Your task to perform on an android device: Add usb-a to the cart on newegg Image 0: 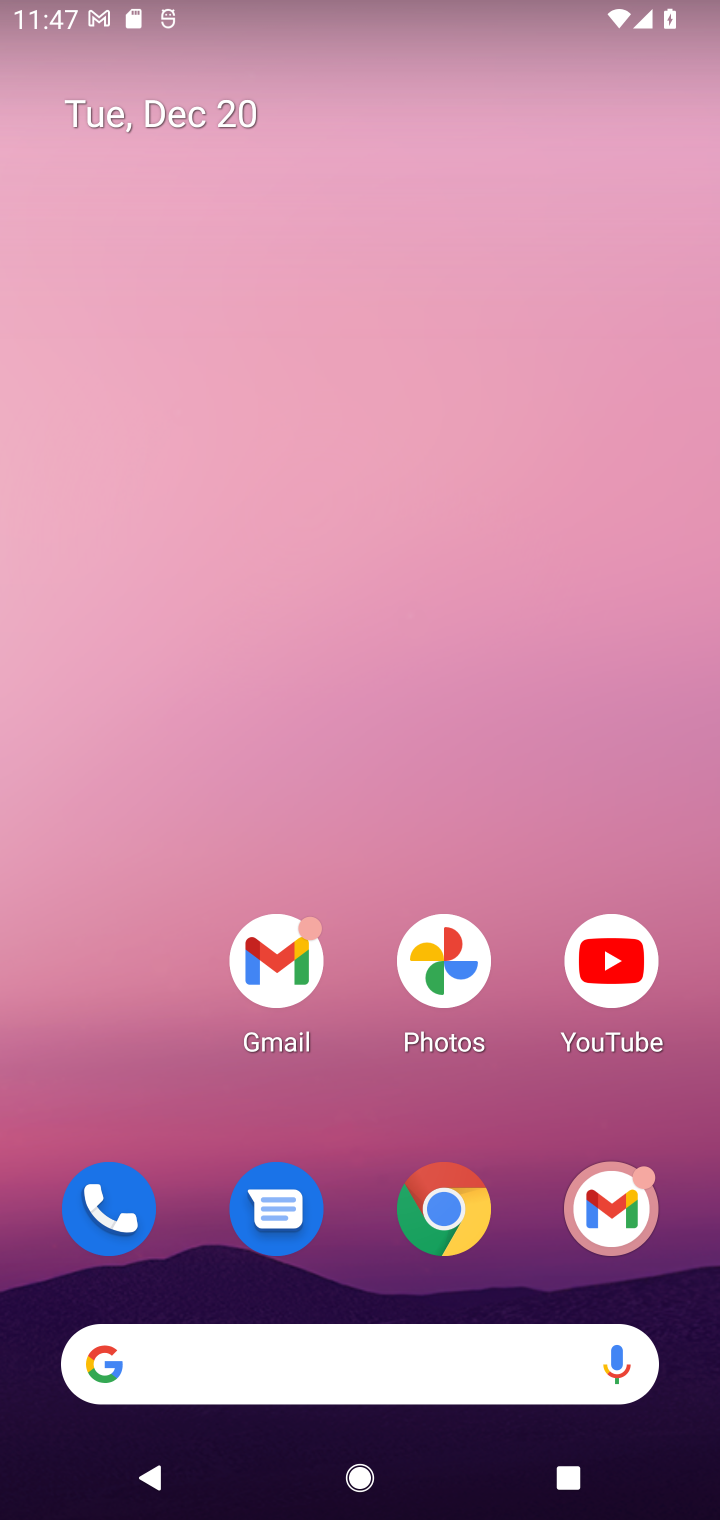
Step 0: click (432, 1218)
Your task to perform on an android device: Add usb-a to the cart on newegg Image 1: 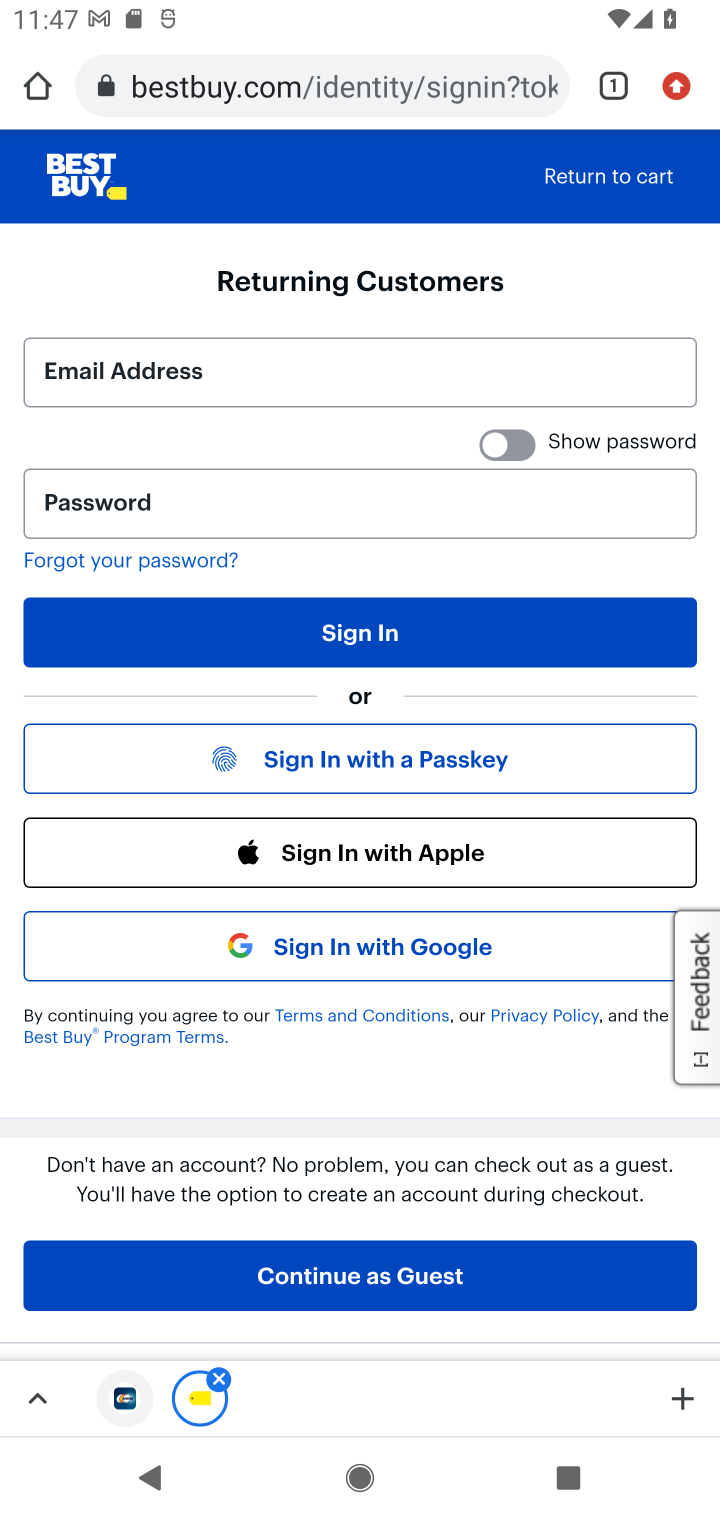
Step 1: click (220, 86)
Your task to perform on an android device: Add usb-a to the cart on newegg Image 2: 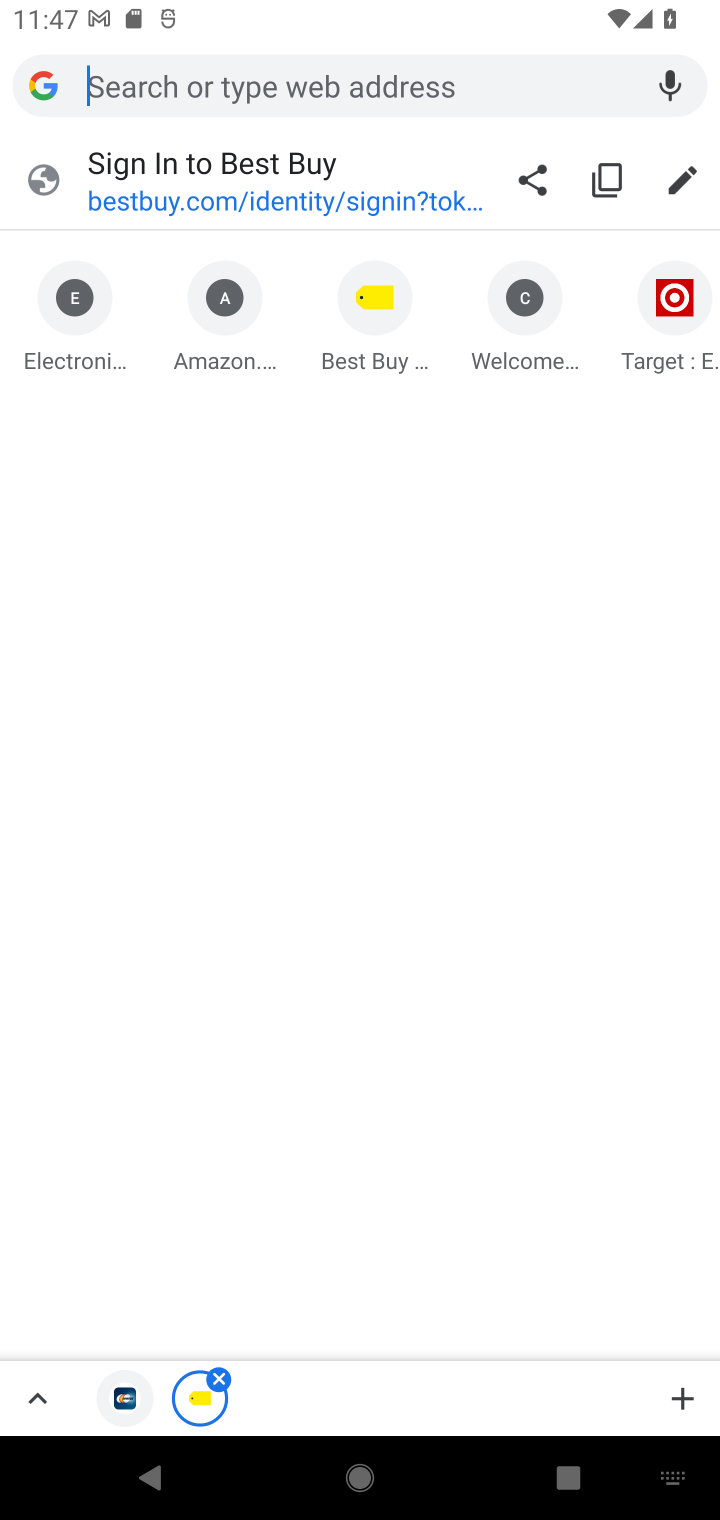
Step 2: type "newegg.com"
Your task to perform on an android device: Add usb-a to the cart on newegg Image 3: 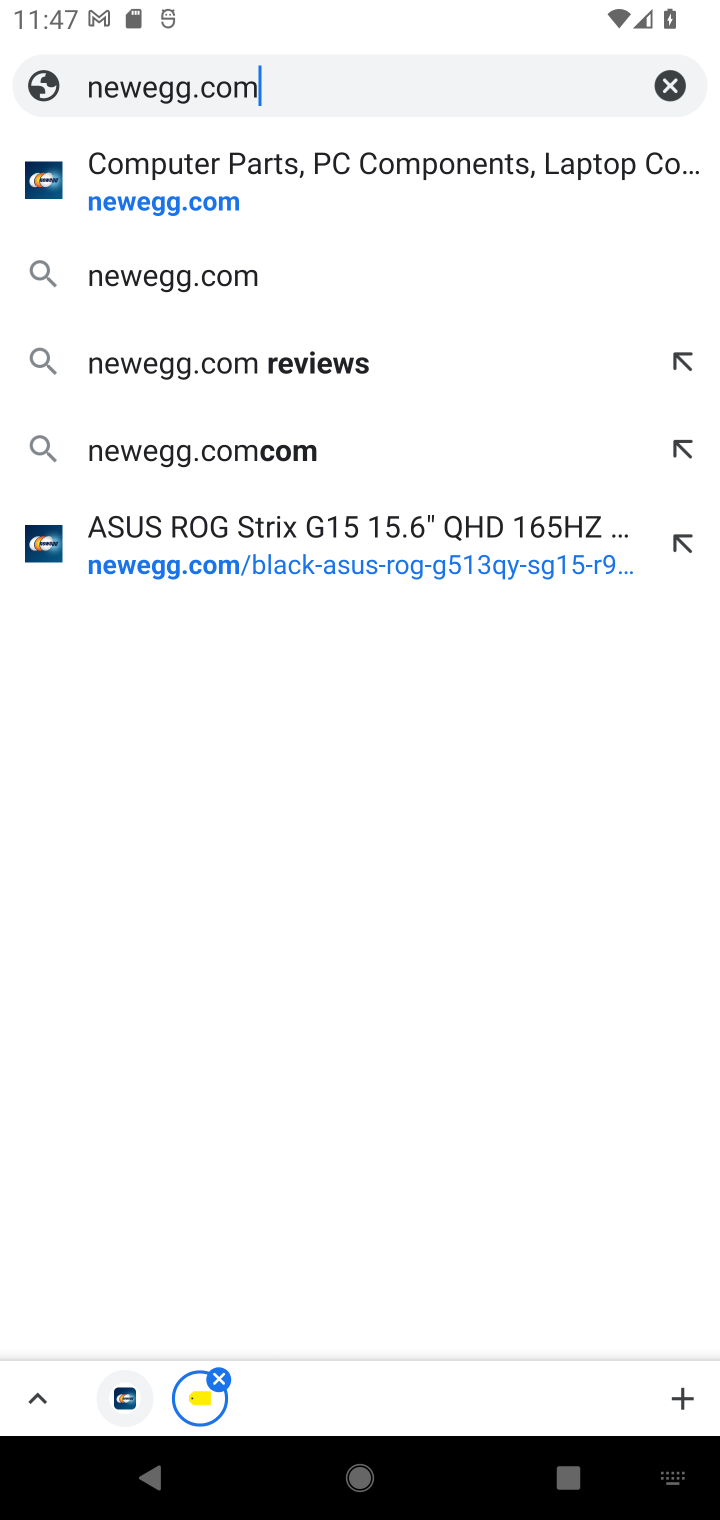
Step 3: click (127, 197)
Your task to perform on an android device: Add usb-a to the cart on newegg Image 4: 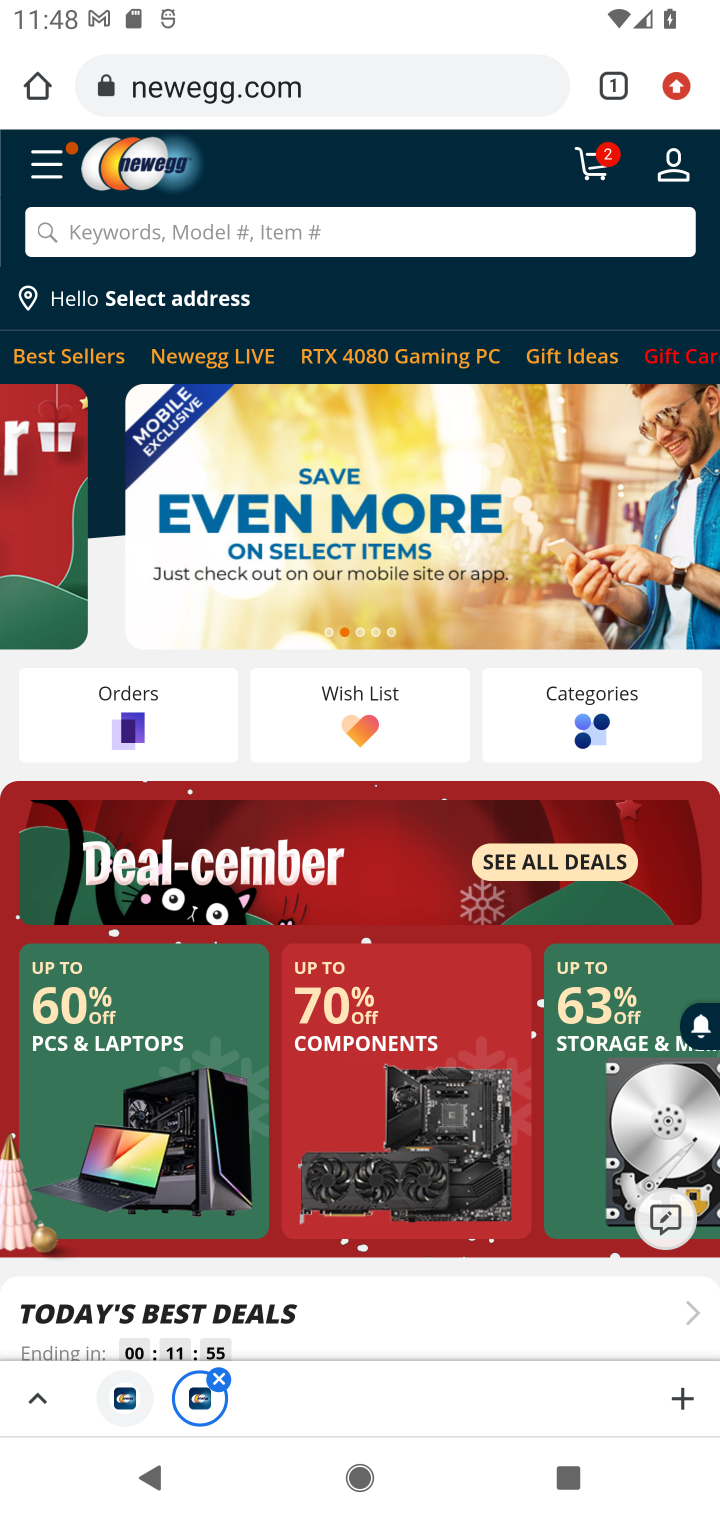
Step 4: click (174, 234)
Your task to perform on an android device: Add usb-a to the cart on newegg Image 5: 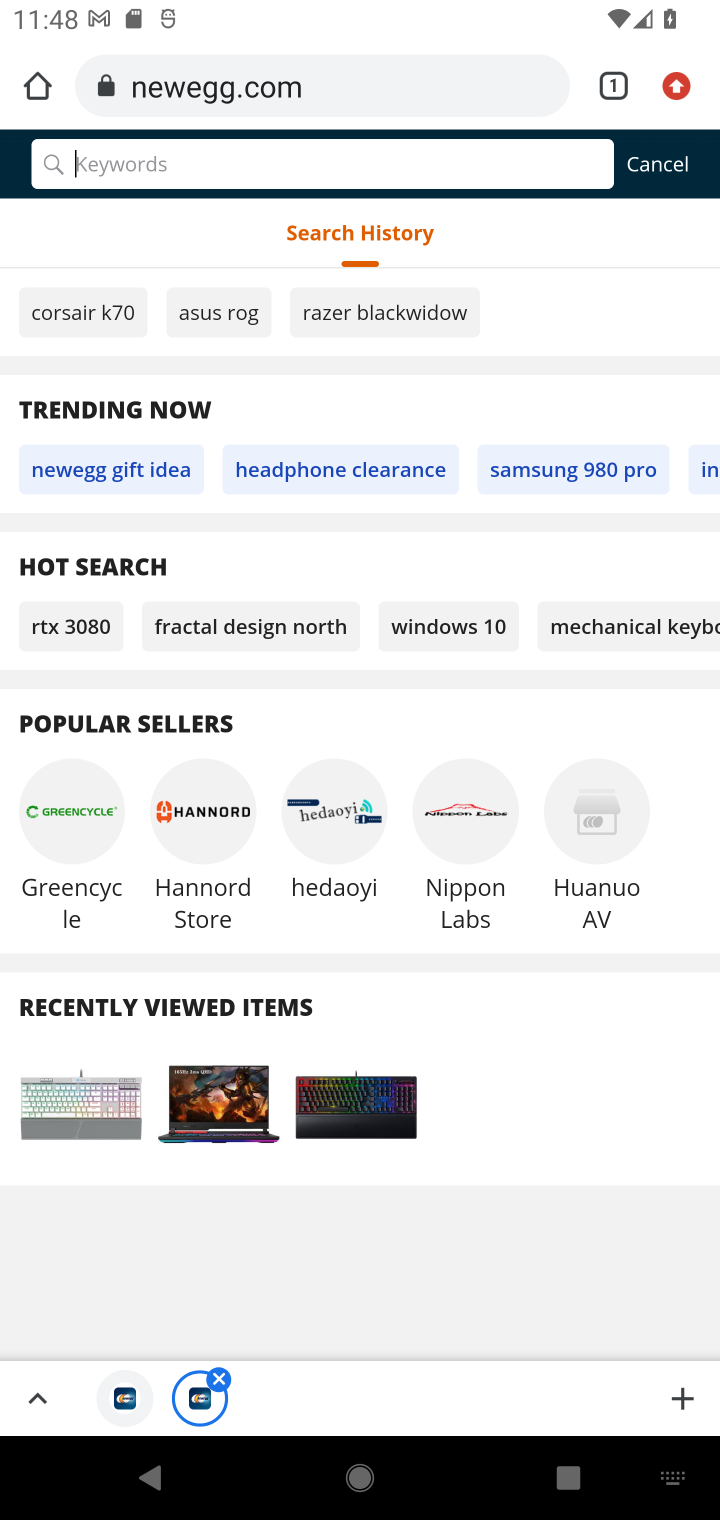
Step 5: type "usb-a"
Your task to perform on an android device: Add usb-a to the cart on newegg Image 6: 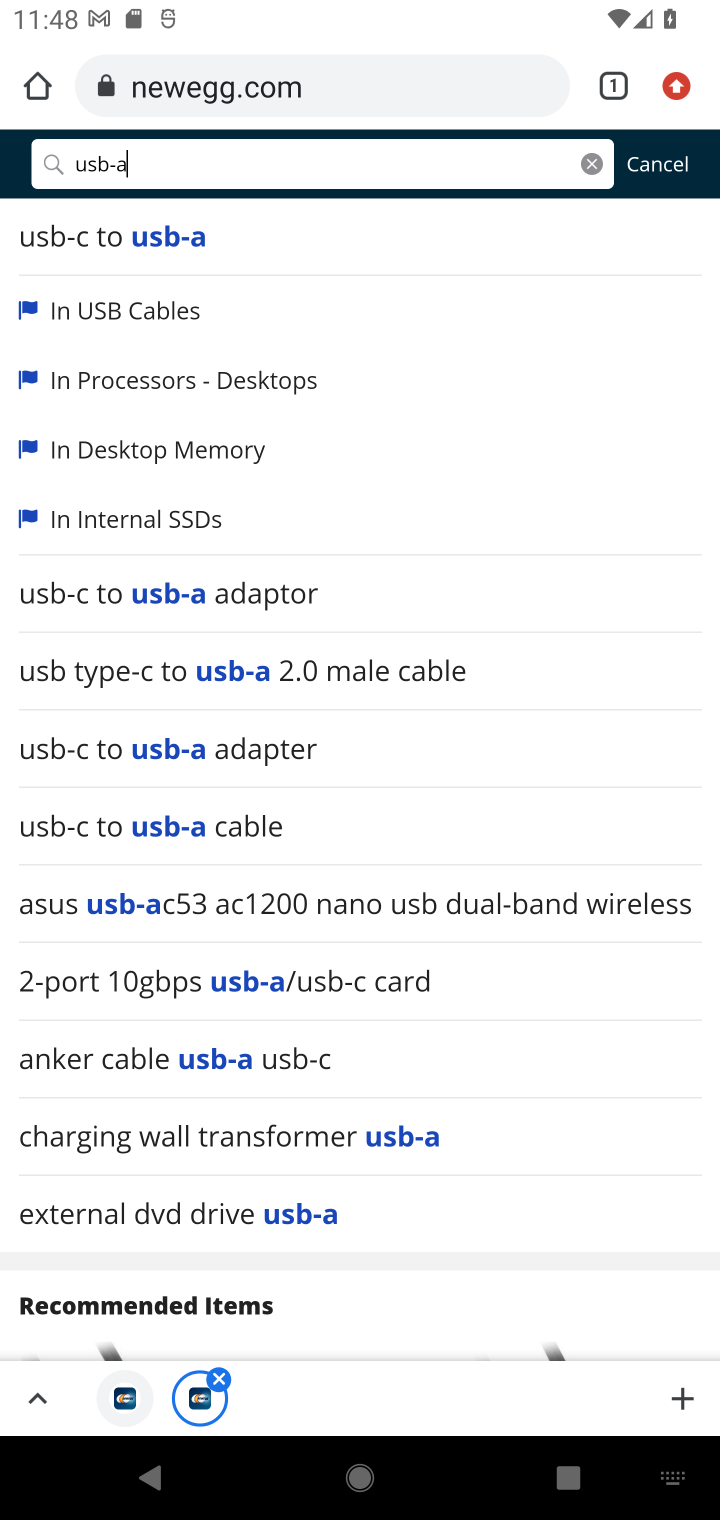
Step 6: click (62, 163)
Your task to perform on an android device: Add usb-a to the cart on newegg Image 7: 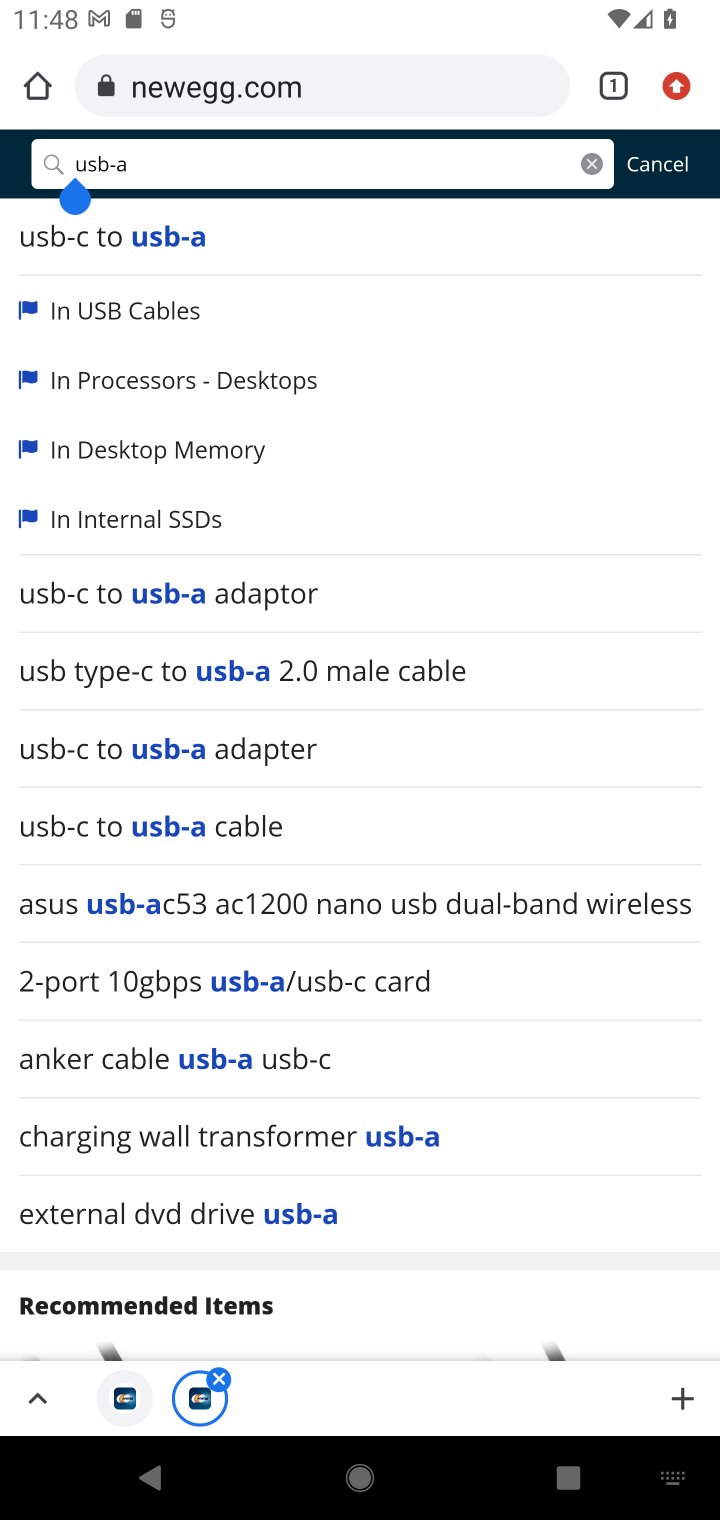
Step 7: click (143, 164)
Your task to perform on an android device: Add usb-a to the cart on newegg Image 8: 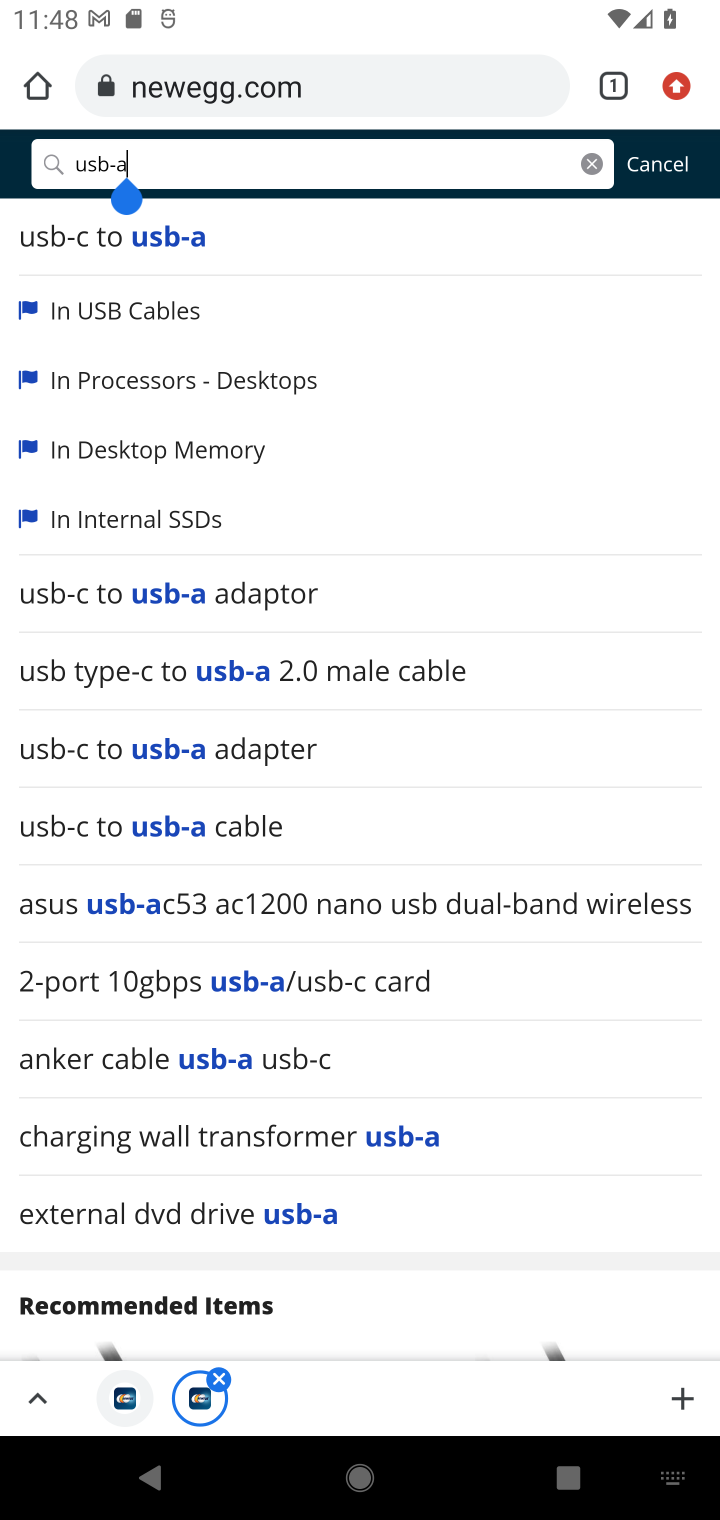
Step 8: click (55, 168)
Your task to perform on an android device: Add usb-a to the cart on newegg Image 9: 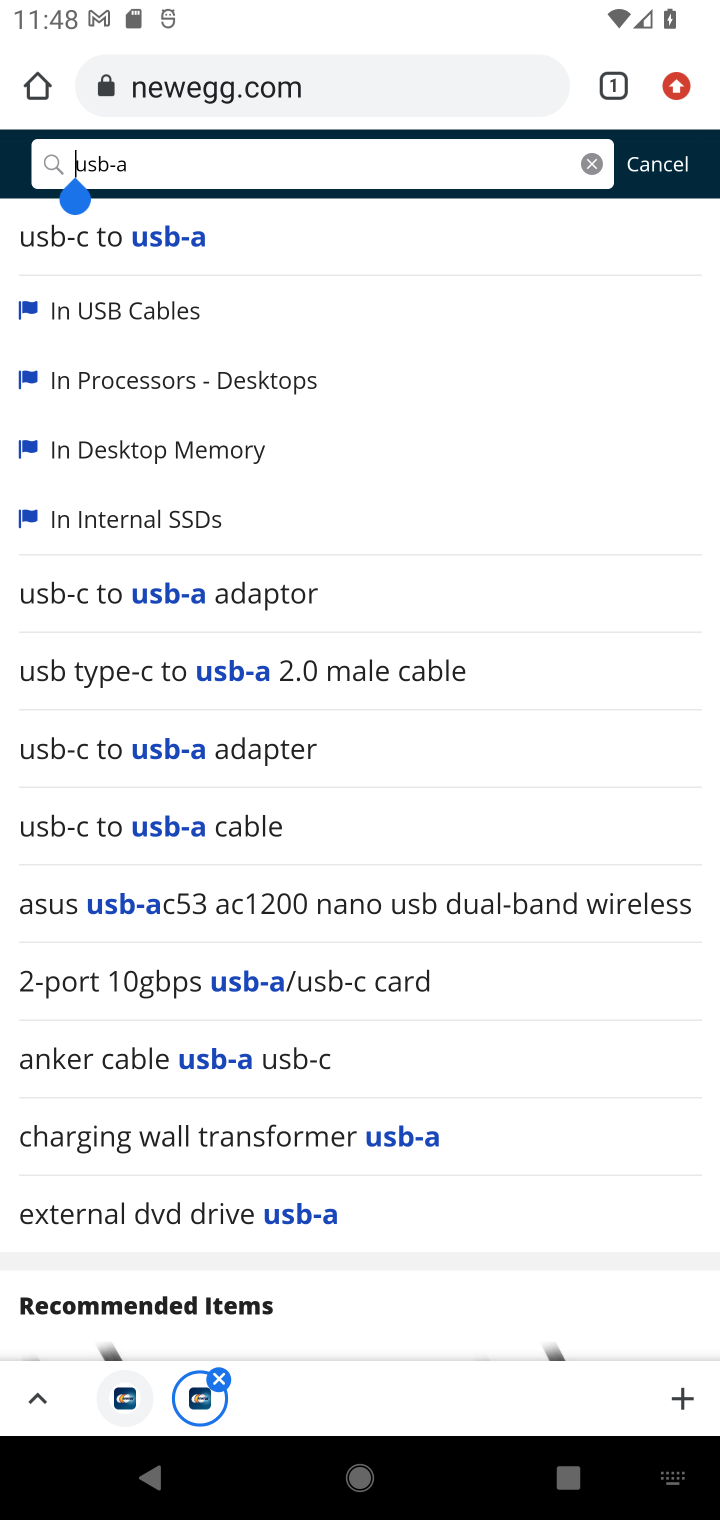
Step 9: drag from (259, 1109) to (261, 741)
Your task to perform on an android device: Add usb-a to the cart on newegg Image 10: 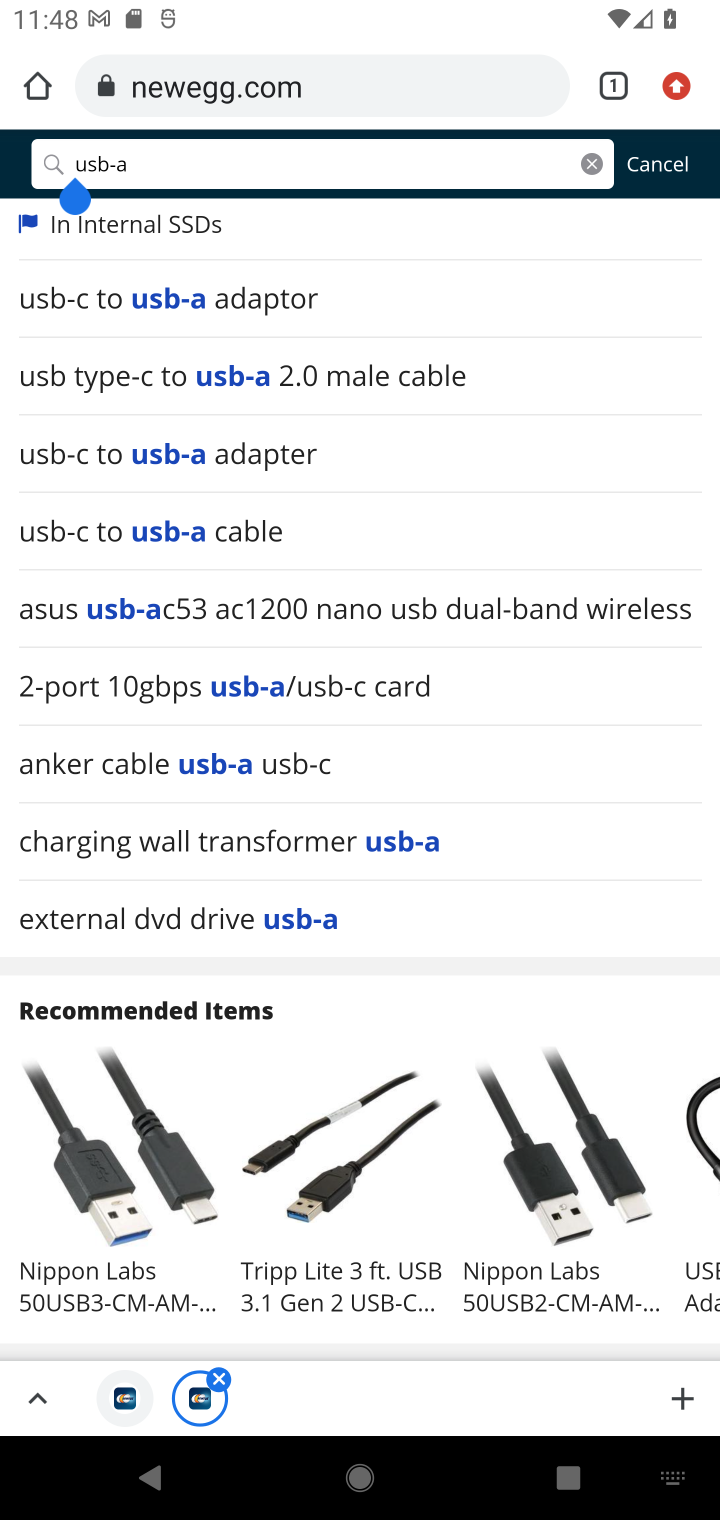
Step 10: click (254, 858)
Your task to perform on an android device: Add usb-a to the cart on newegg Image 11: 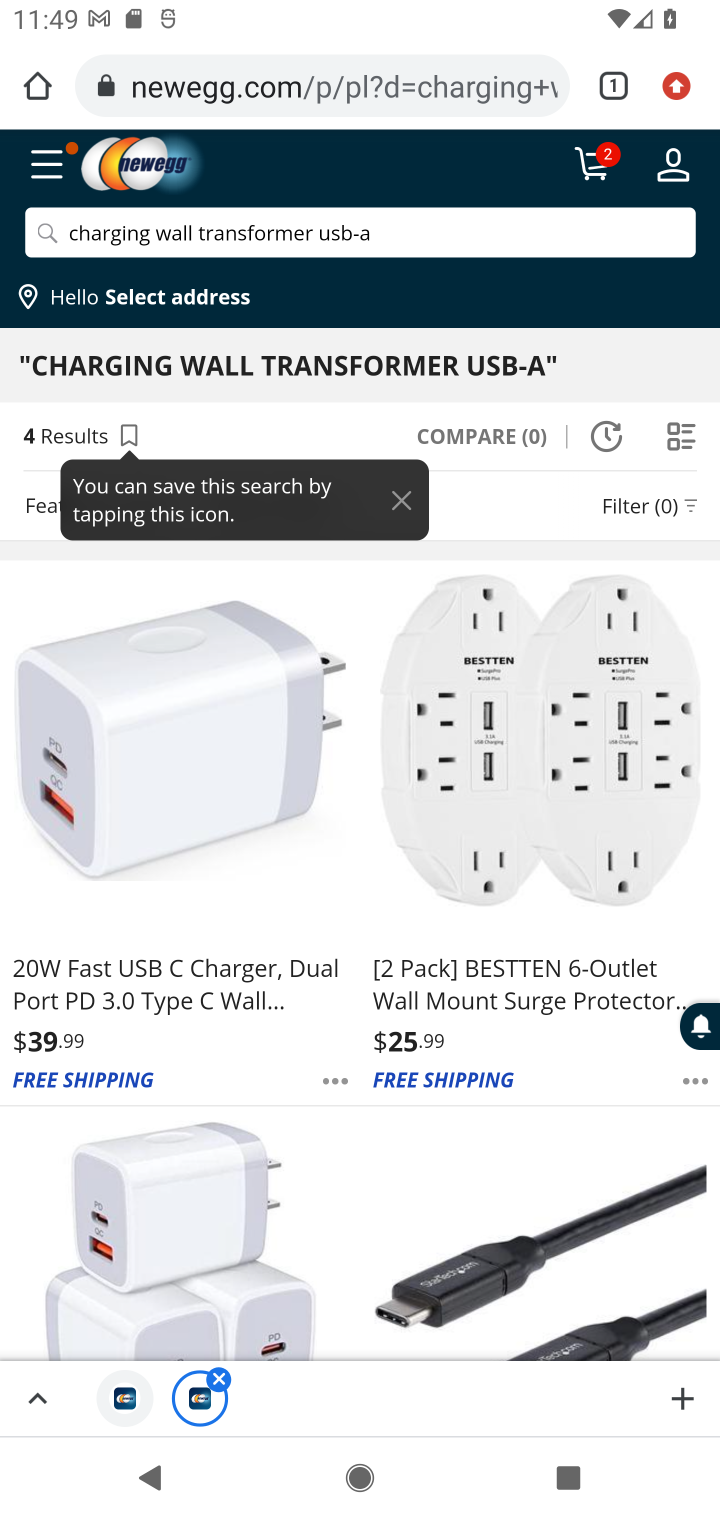
Step 11: drag from (260, 1020) to (250, 528)
Your task to perform on an android device: Add usb-a to the cart on newegg Image 12: 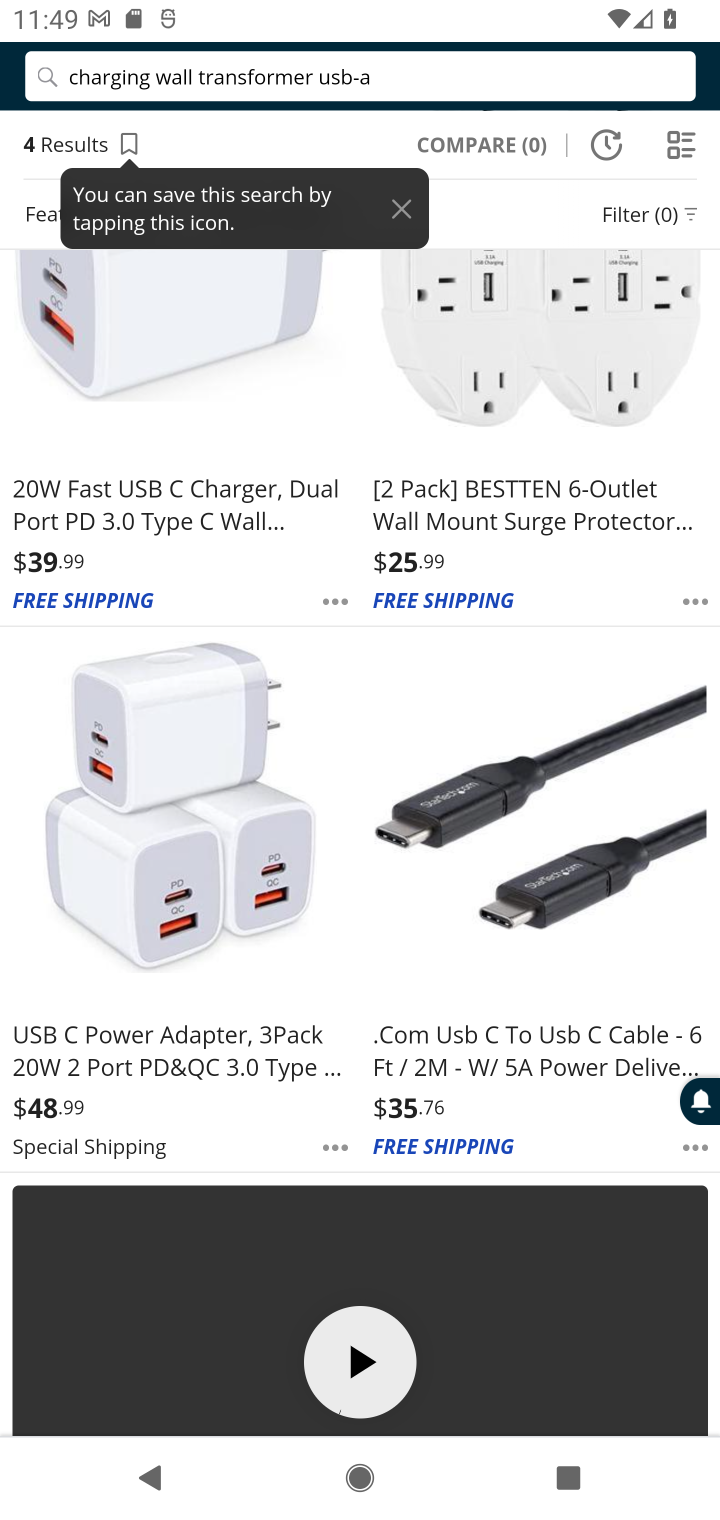
Step 12: drag from (316, 909) to (278, 426)
Your task to perform on an android device: Add usb-a to the cart on newegg Image 13: 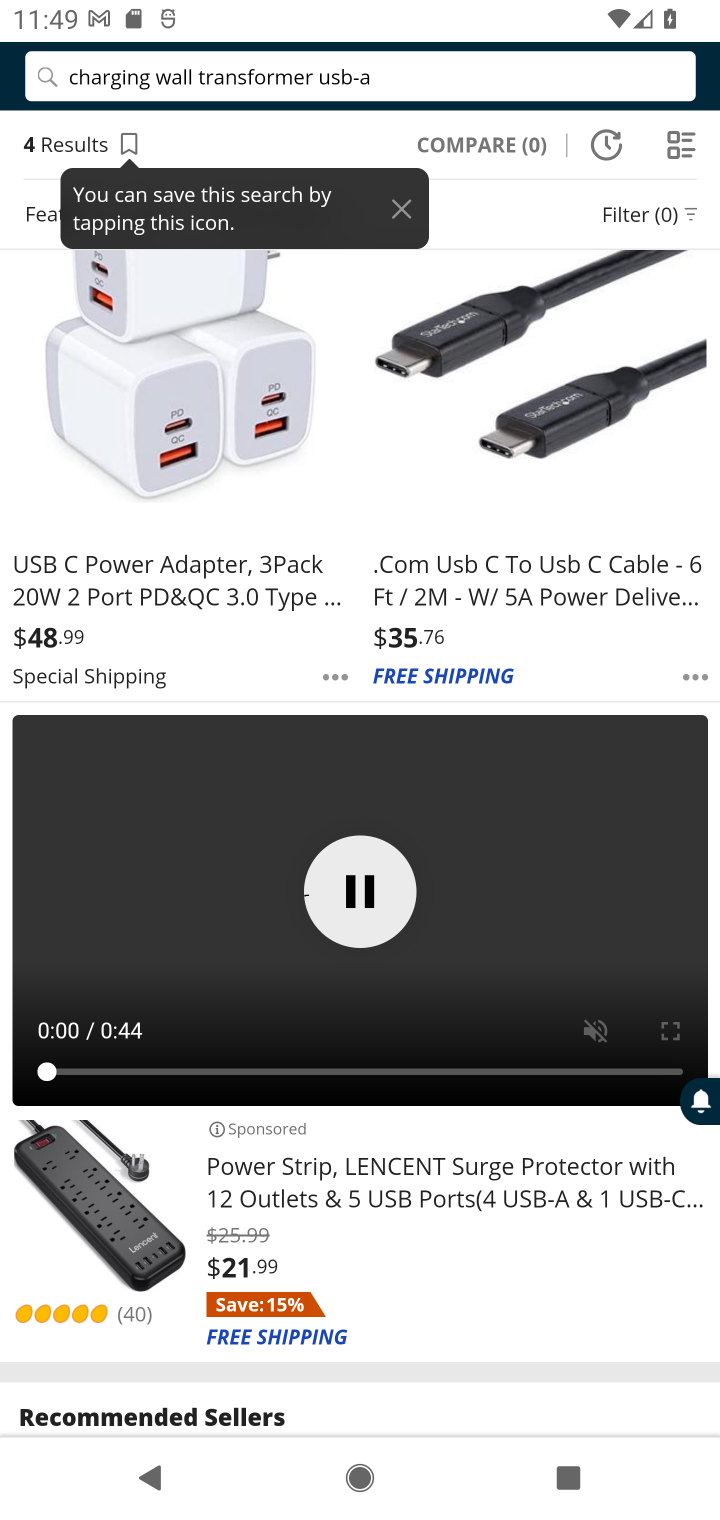
Step 13: drag from (306, 1143) to (269, 602)
Your task to perform on an android device: Add usb-a to the cart on newegg Image 14: 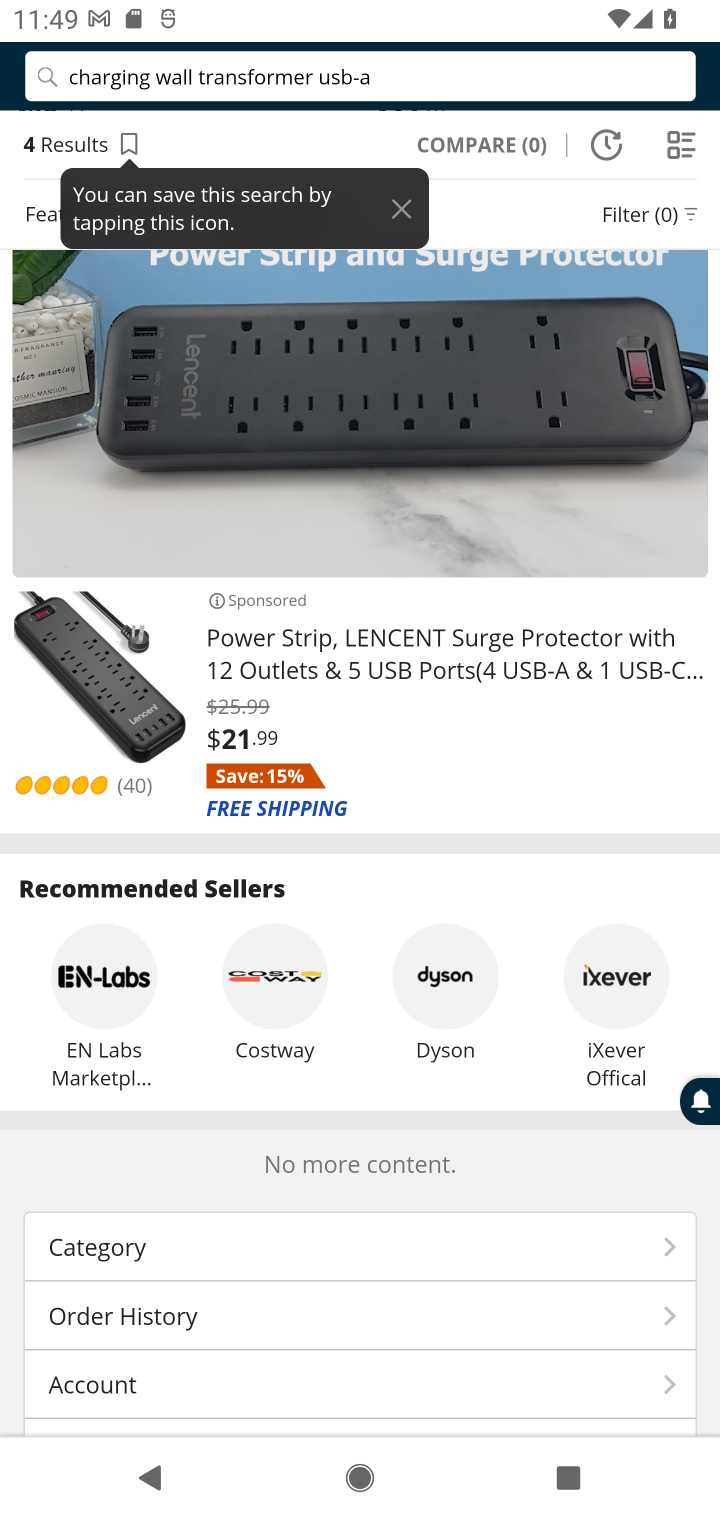
Step 14: click (281, 675)
Your task to perform on an android device: Add usb-a to the cart on newegg Image 15: 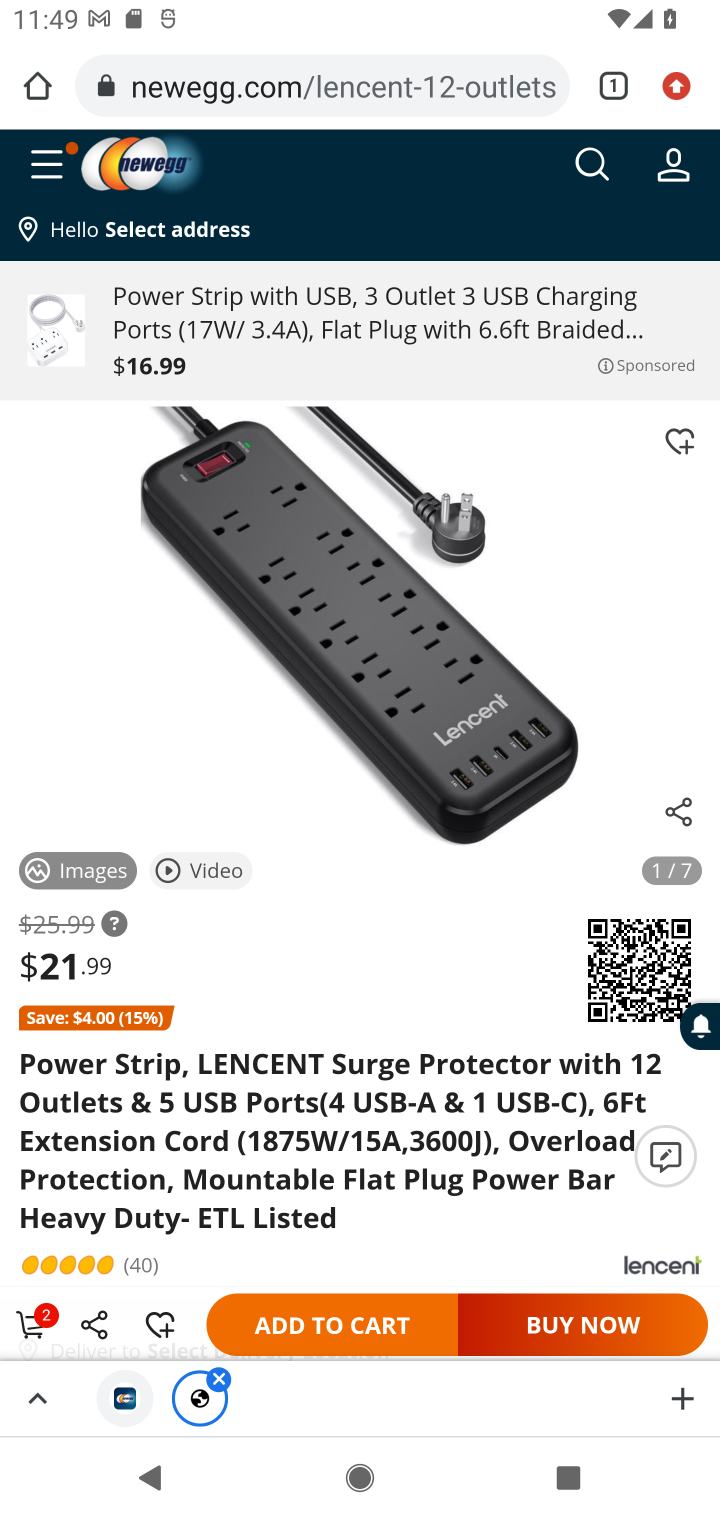
Step 15: click (294, 1329)
Your task to perform on an android device: Add usb-a to the cart on newegg Image 16: 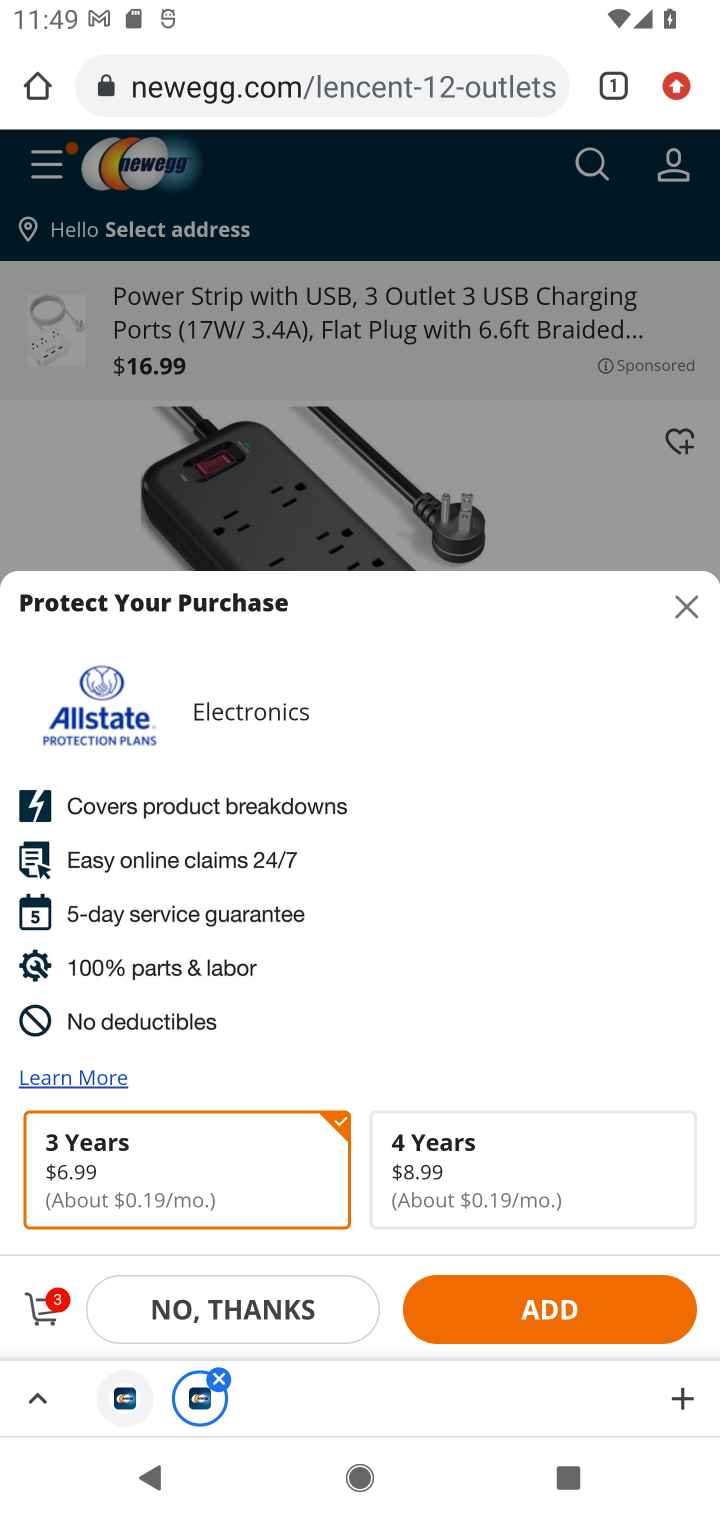
Step 16: task complete